Your task to perform on an android device: Is it going to rain tomorrow? Image 0: 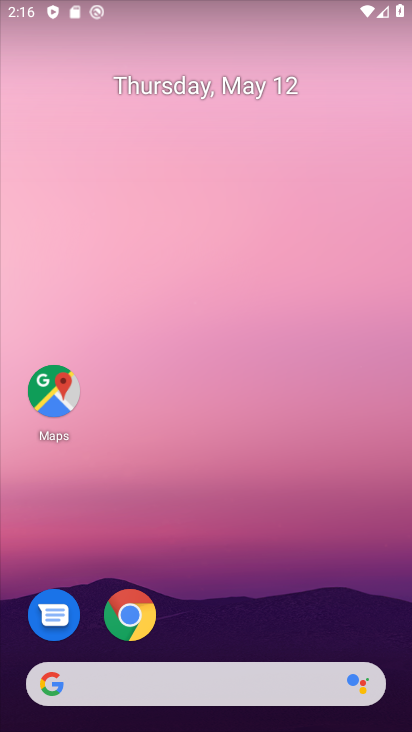
Step 0: click (98, 672)
Your task to perform on an android device: Is it going to rain tomorrow? Image 1: 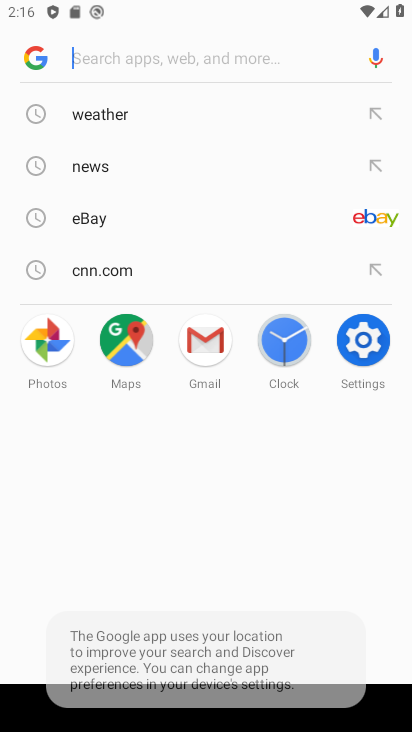
Step 1: click (86, 114)
Your task to perform on an android device: Is it going to rain tomorrow? Image 2: 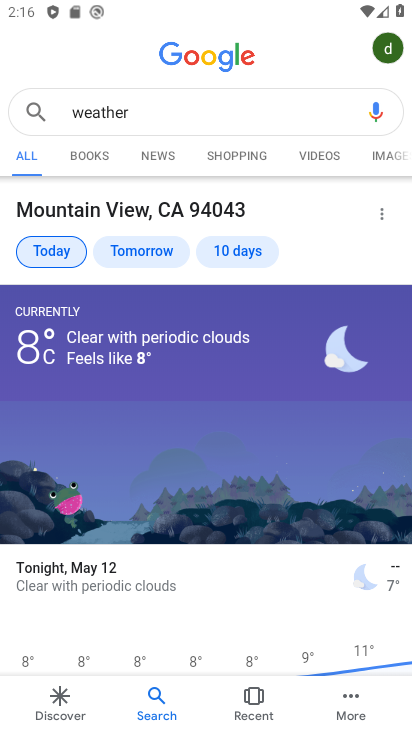
Step 2: click (143, 252)
Your task to perform on an android device: Is it going to rain tomorrow? Image 3: 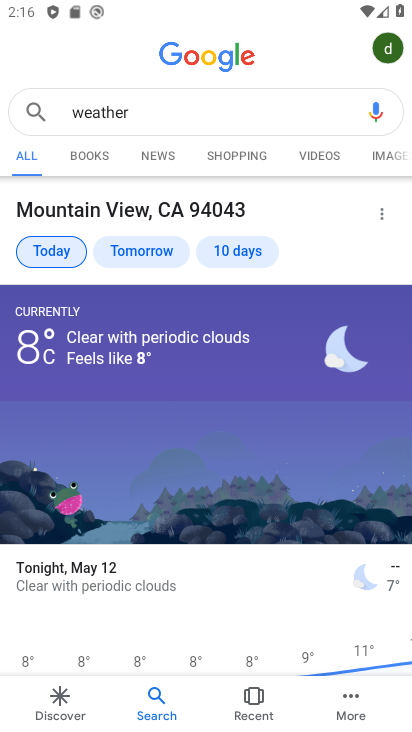
Step 3: click (140, 257)
Your task to perform on an android device: Is it going to rain tomorrow? Image 4: 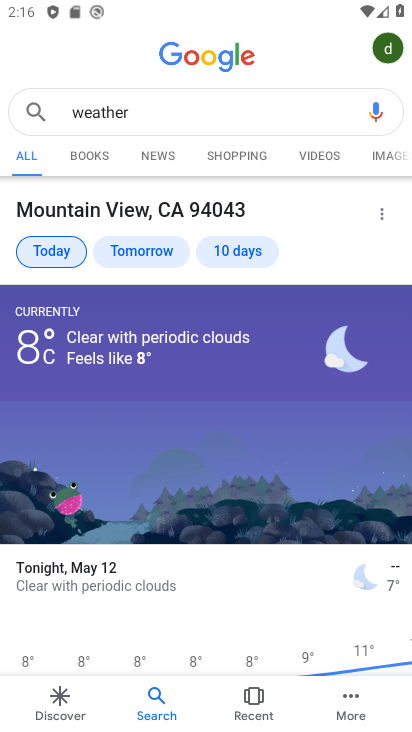
Step 4: click (140, 249)
Your task to perform on an android device: Is it going to rain tomorrow? Image 5: 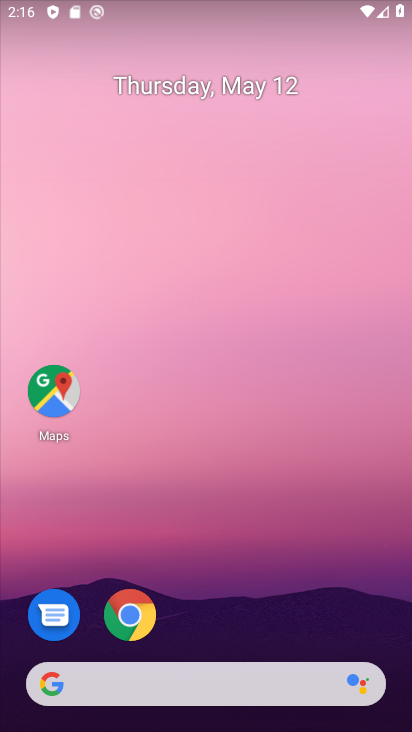
Step 5: click (156, 683)
Your task to perform on an android device: Is it going to rain tomorrow? Image 6: 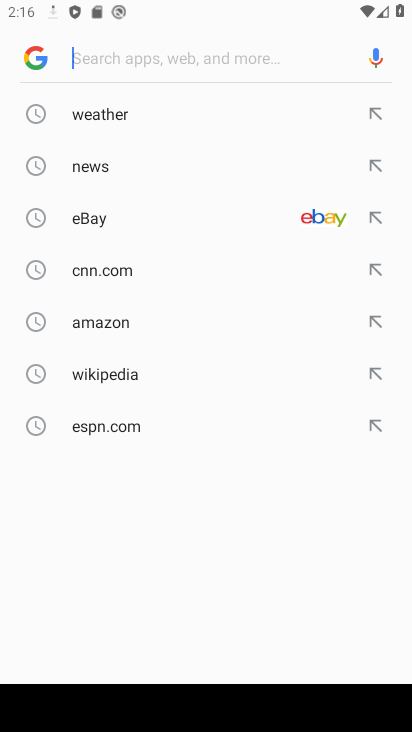
Step 6: click (100, 114)
Your task to perform on an android device: Is it going to rain tomorrow? Image 7: 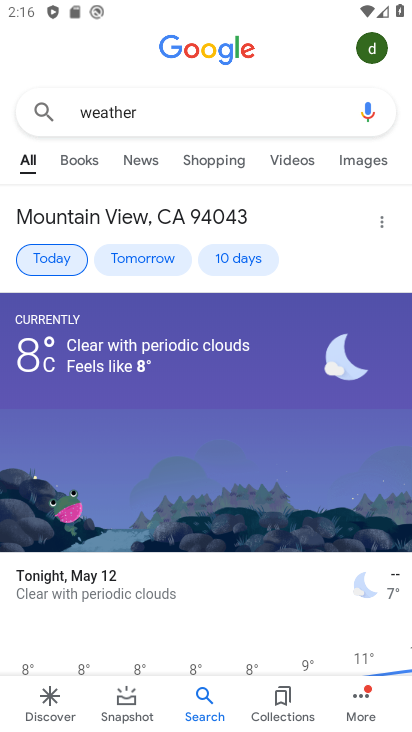
Step 7: click (127, 255)
Your task to perform on an android device: Is it going to rain tomorrow? Image 8: 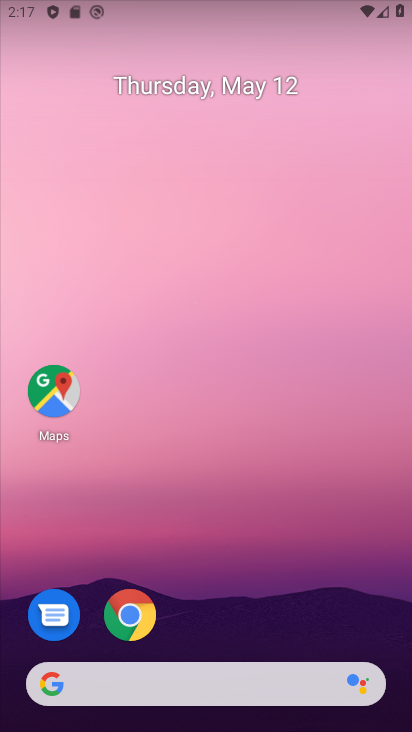
Step 8: task complete